Your task to perform on an android device: add a label to a message in the gmail app Image 0: 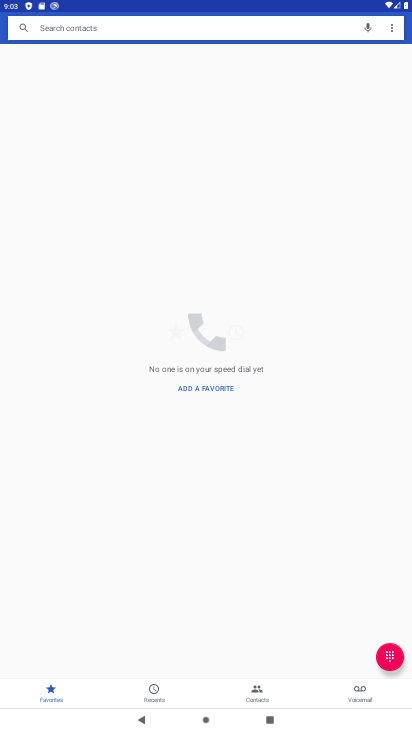
Step 0: press home button
Your task to perform on an android device: add a label to a message in the gmail app Image 1: 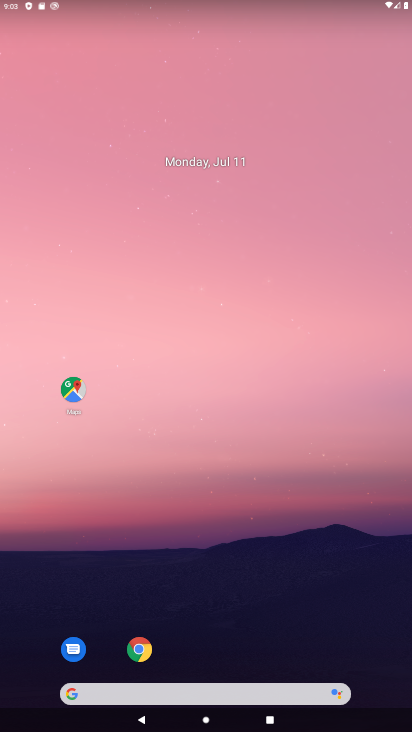
Step 1: drag from (177, 680) to (255, 165)
Your task to perform on an android device: add a label to a message in the gmail app Image 2: 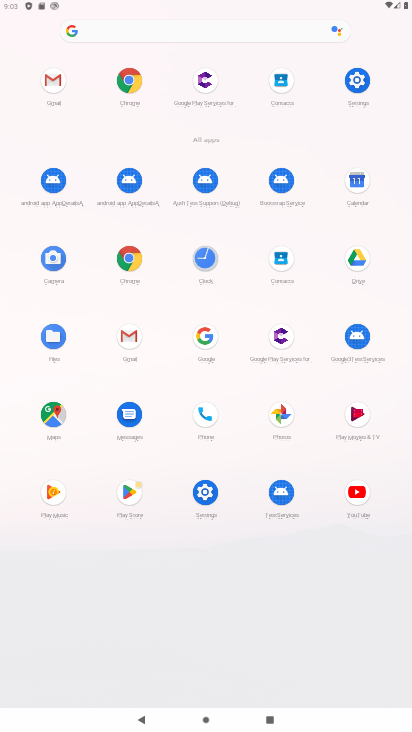
Step 2: click (121, 339)
Your task to perform on an android device: add a label to a message in the gmail app Image 3: 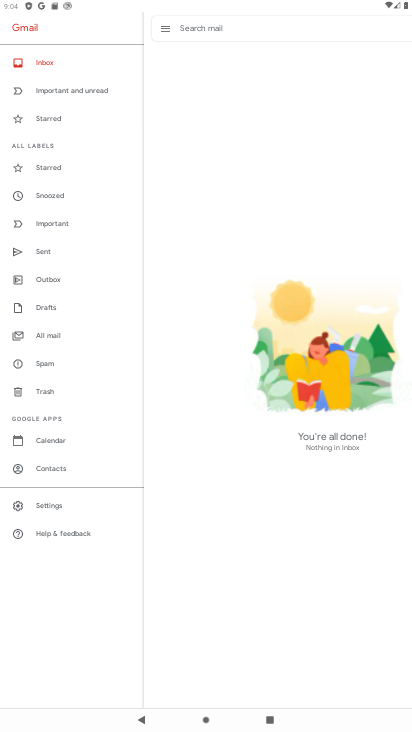
Step 3: task complete